Your task to perform on an android device: turn on priority inbox in the gmail app Image 0: 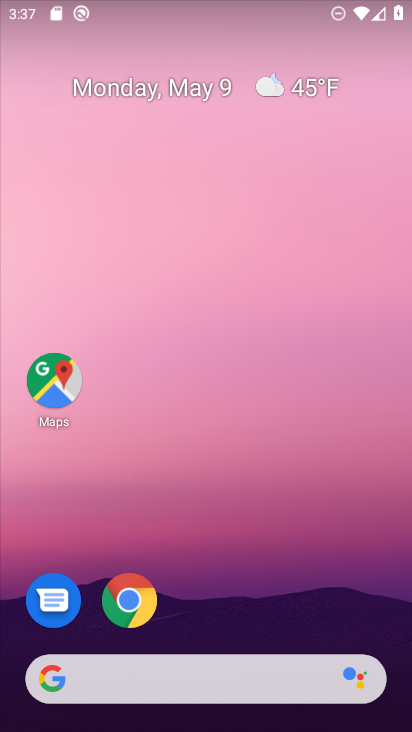
Step 0: drag from (237, 630) to (302, 140)
Your task to perform on an android device: turn on priority inbox in the gmail app Image 1: 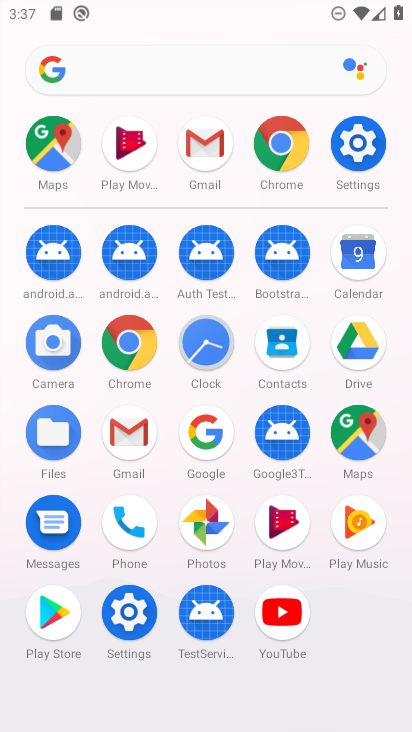
Step 1: click (138, 445)
Your task to perform on an android device: turn on priority inbox in the gmail app Image 2: 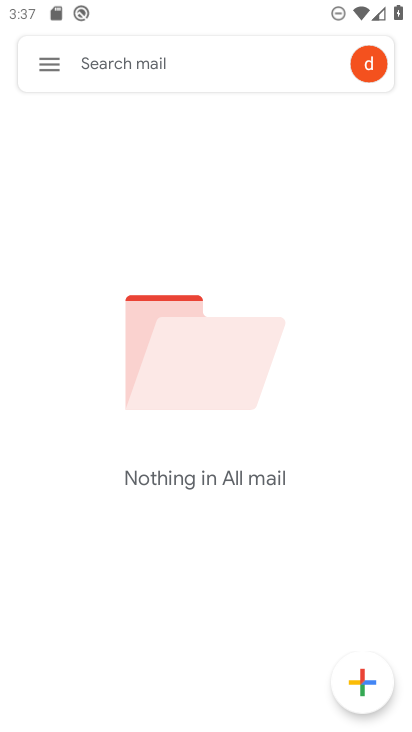
Step 2: click (48, 73)
Your task to perform on an android device: turn on priority inbox in the gmail app Image 3: 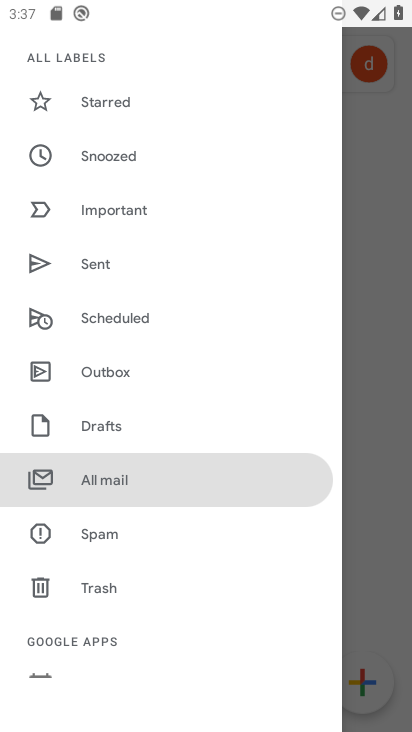
Step 3: drag from (99, 657) to (212, 205)
Your task to perform on an android device: turn on priority inbox in the gmail app Image 4: 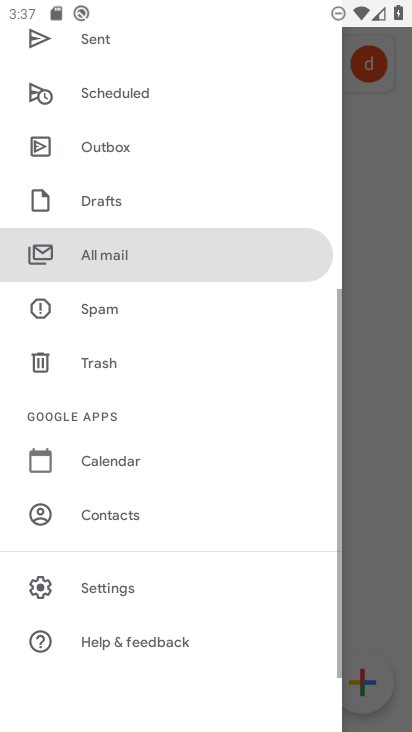
Step 4: click (94, 579)
Your task to perform on an android device: turn on priority inbox in the gmail app Image 5: 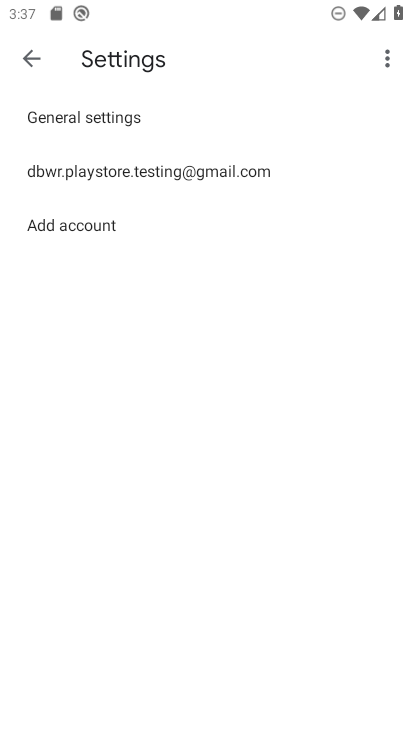
Step 5: click (159, 167)
Your task to perform on an android device: turn on priority inbox in the gmail app Image 6: 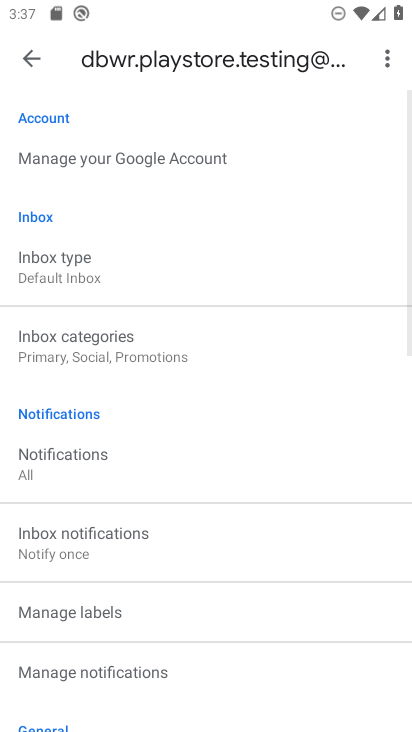
Step 6: click (90, 282)
Your task to perform on an android device: turn on priority inbox in the gmail app Image 7: 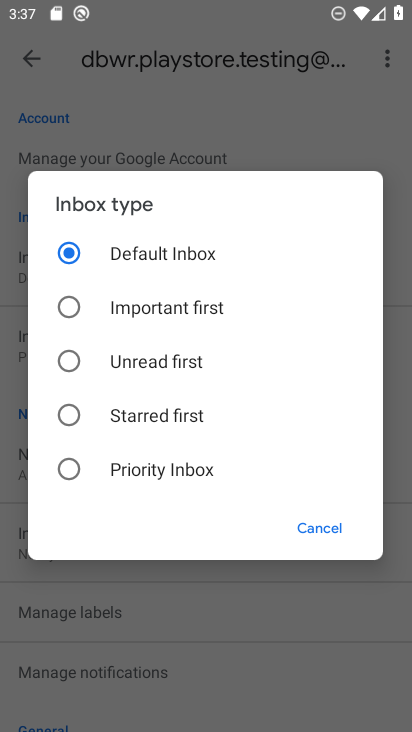
Step 7: click (82, 469)
Your task to perform on an android device: turn on priority inbox in the gmail app Image 8: 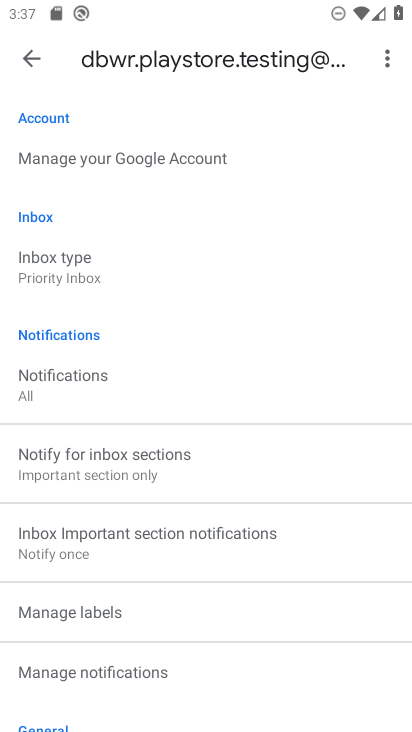
Step 8: task complete